Your task to perform on an android device: turn off smart reply in the gmail app Image 0: 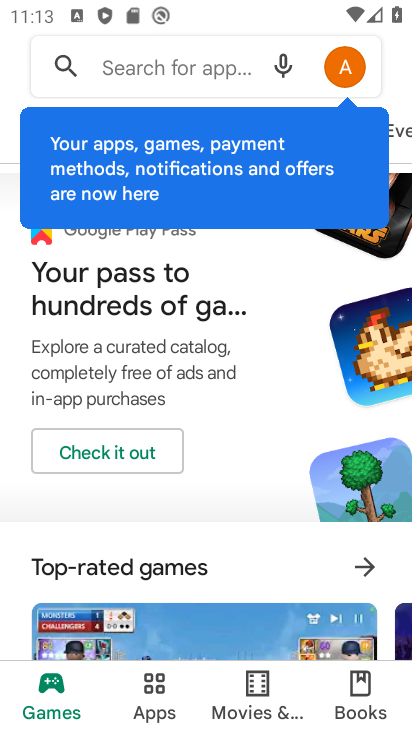
Step 0: press home button
Your task to perform on an android device: turn off smart reply in the gmail app Image 1: 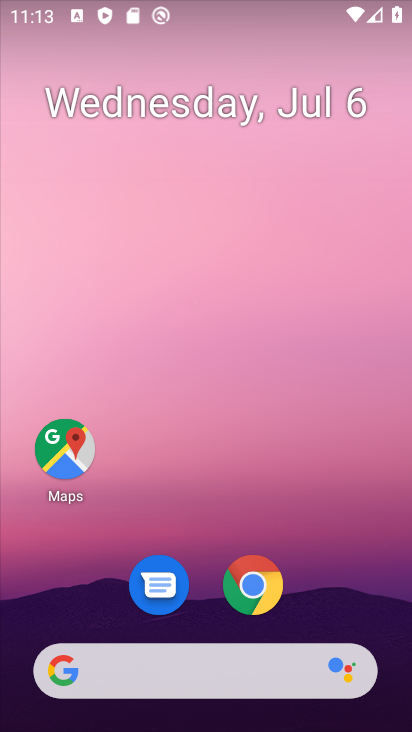
Step 1: drag from (210, 487) to (225, 16)
Your task to perform on an android device: turn off smart reply in the gmail app Image 2: 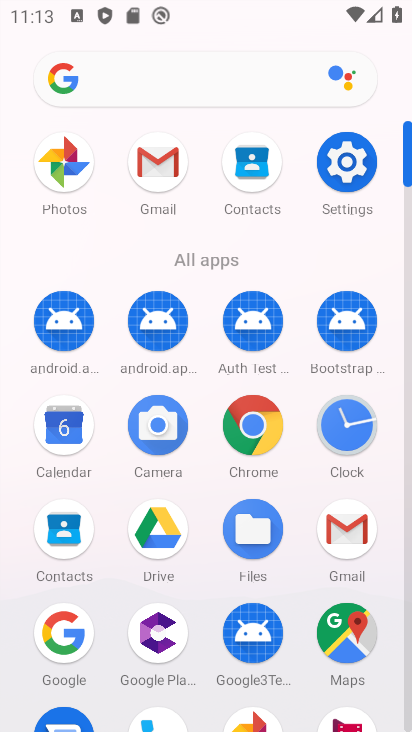
Step 2: click (150, 165)
Your task to perform on an android device: turn off smart reply in the gmail app Image 3: 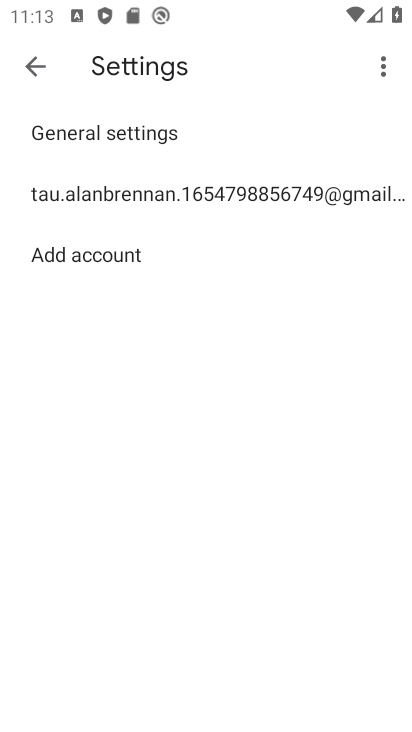
Step 3: click (156, 193)
Your task to perform on an android device: turn off smart reply in the gmail app Image 4: 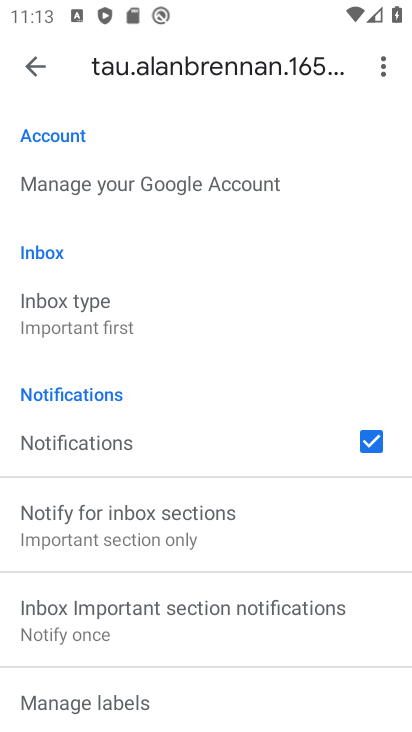
Step 4: drag from (204, 546) to (211, 112)
Your task to perform on an android device: turn off smart reply in the gmail app Image 5: 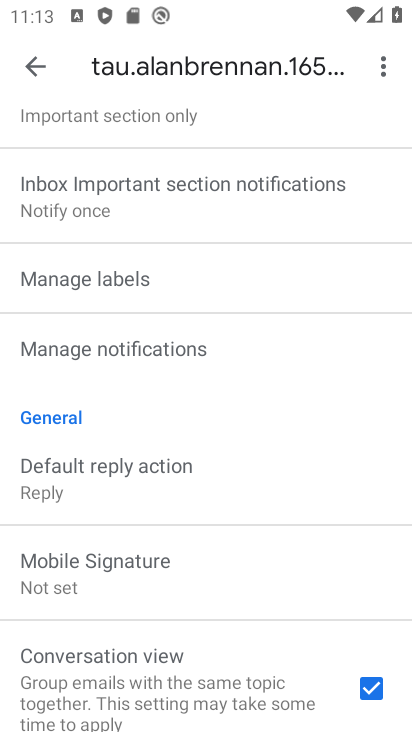
Step 5: drag from (221, 562) to (242, 117)
Your task to perform on an android device: turn off smart reply in the gmail app Image 6: 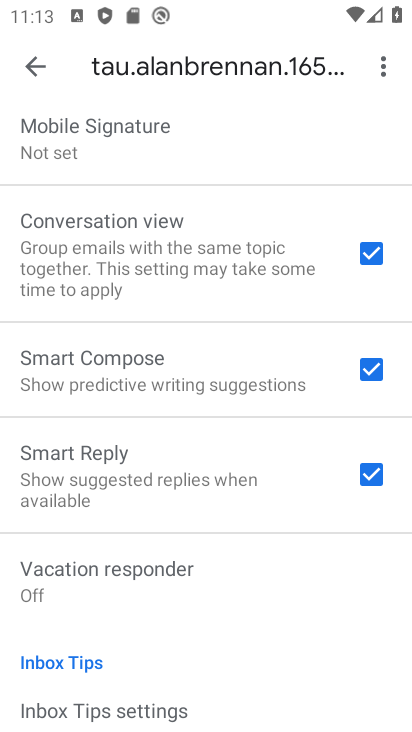
Step 6: click (373, 475)
Your task to perform on an android device: turn off smart reply in the gmail app Image 7: 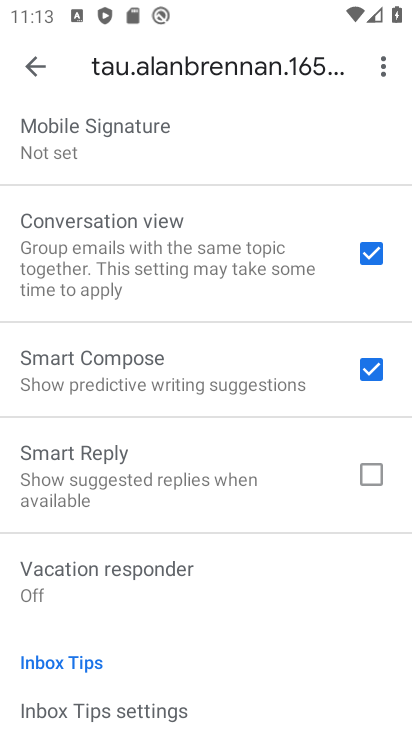
Step 7: task complete